Your task to perform on an android device: Search for Italian restaurants on Maps Image 0: 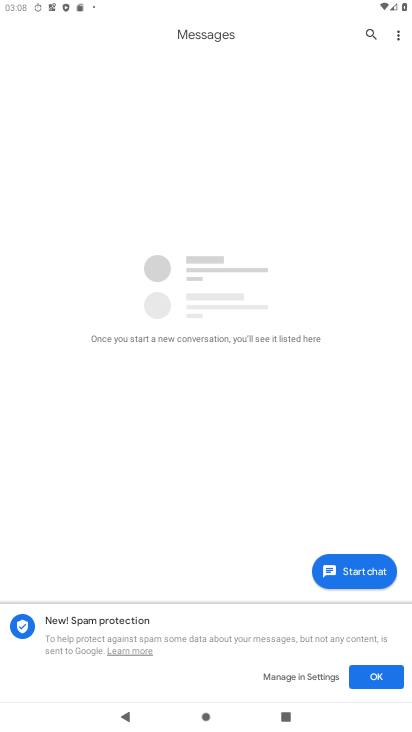
Step 0: press home button
Your task to perform on an android device: Search for Italian restaurants on Maps Image 1: 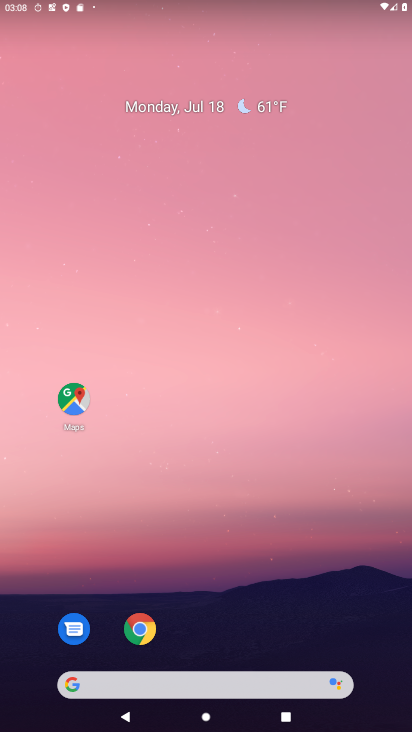
Step 1: click (74, 399)
Your task to perform on an android device: Search for Italian restaurants on Maps Image 2: 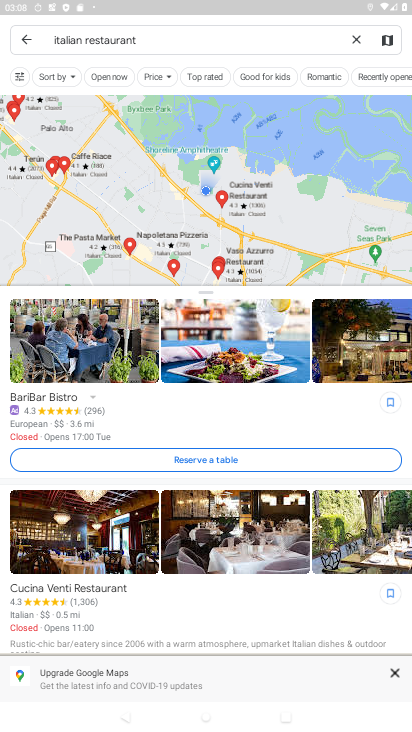
Step 2: click (355, 36)
Your task to perform on an android device: Search for Italian restaurants on Maps Image 3: 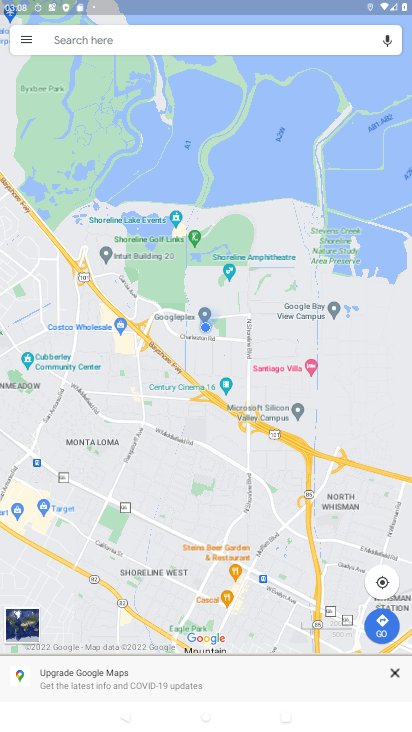
Step 3: click (269, 42)
Your task to perform on an android device: Search for Italian restaurants on Maps Image 4: 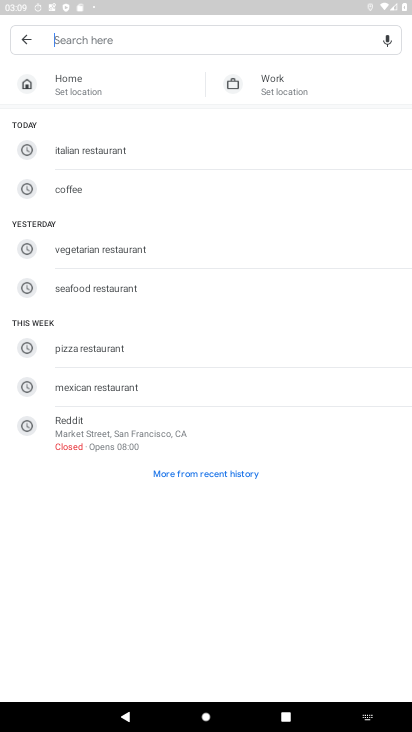
Step 4: type "Italian restaurants"
Your task to perform on an android device: Search for Italian restaurants on Maps Image 5: 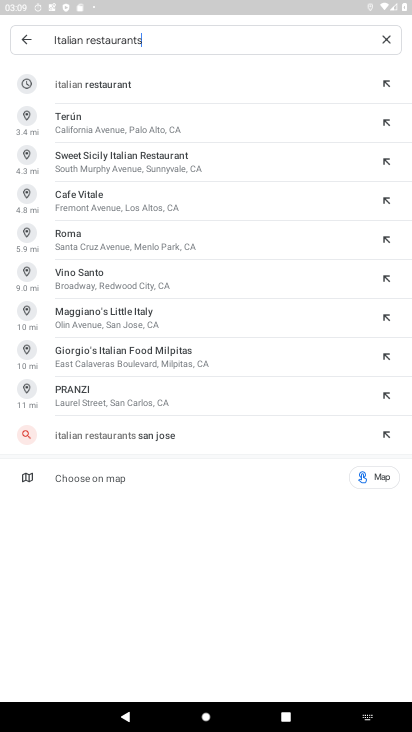
Step 5: click (121, 89)
Your task to perform on an android device: Search for Italian restaurants on Maps Image 6: 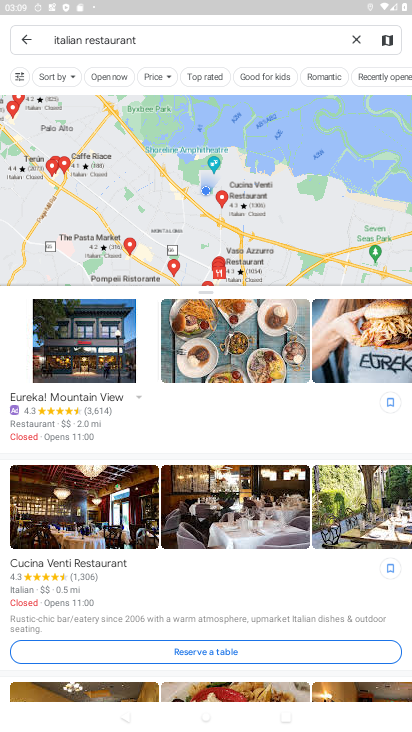
Step 6: task complete